Your task to perform on an android device: see sites visited before in the chrome app Image 0: 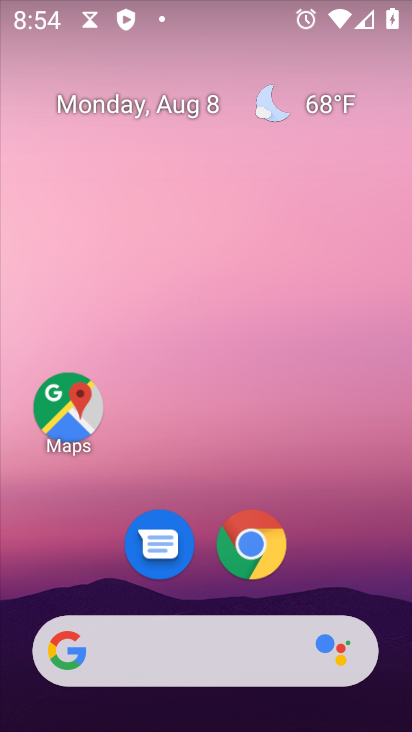
Step 0: press home button
Your task to perform on an android device: see sites visited before in the chrome app Image 1: 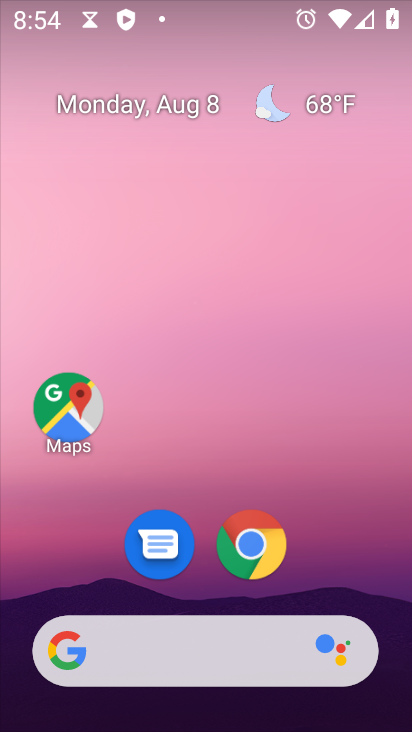
Step 1: drag from (347, 563) to (355, 84)
Your task to perform on an android device: see sites visited before in the chrome app Image 2: 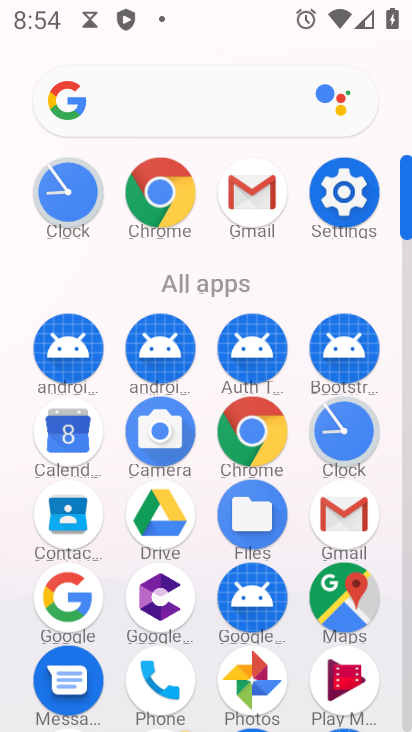
Step 2: click (239, 435)
Your task to perform on an android device: see sites visited before in the chrome app Image 3: 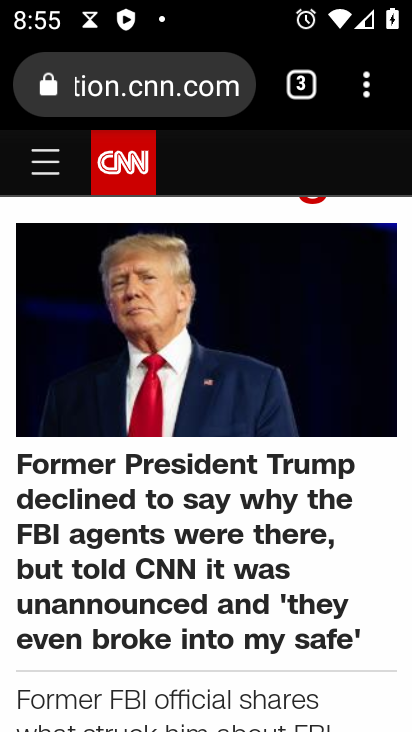
Step 3: click (368, 88)
Your task to perform on an android device: see sites visited before in the chrome app Image 4: 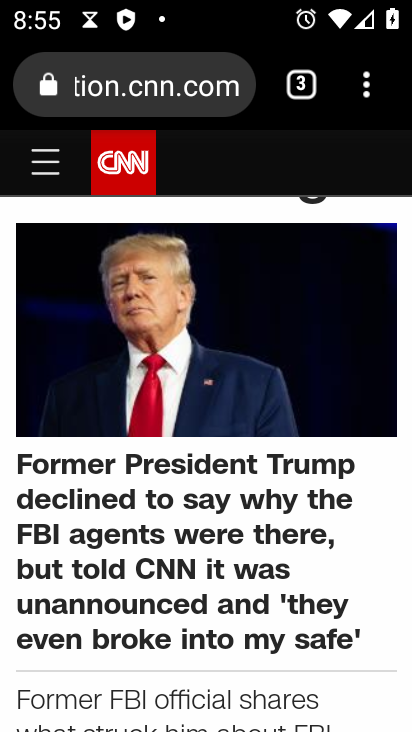
Step 4: click (368, 88)
Your task to perform on an android device: see sites visited before in the chrome app Image 5: 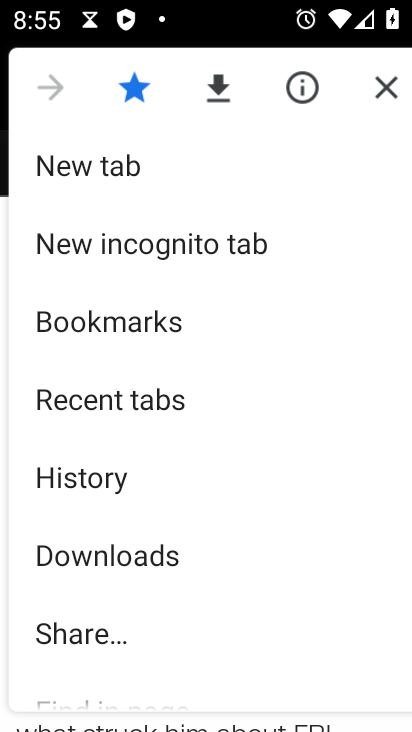
Step 5: click (146, 480)
Your task to perform on an android device: see sites visited before in the chrome app Image 6: 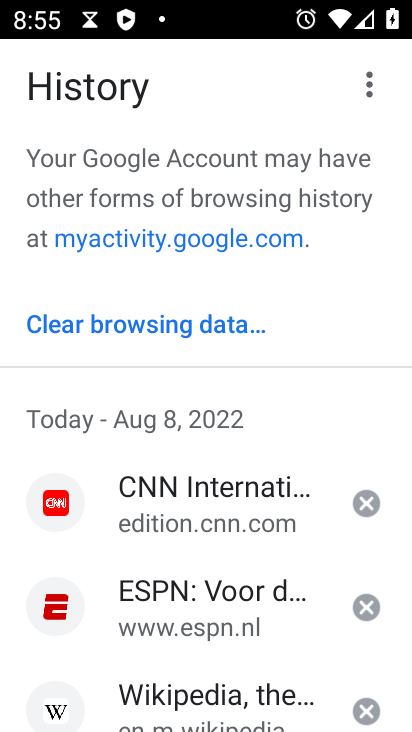
Step 6: task complete